Your task to perform on an android device: open sync settings in chrome Image 0: 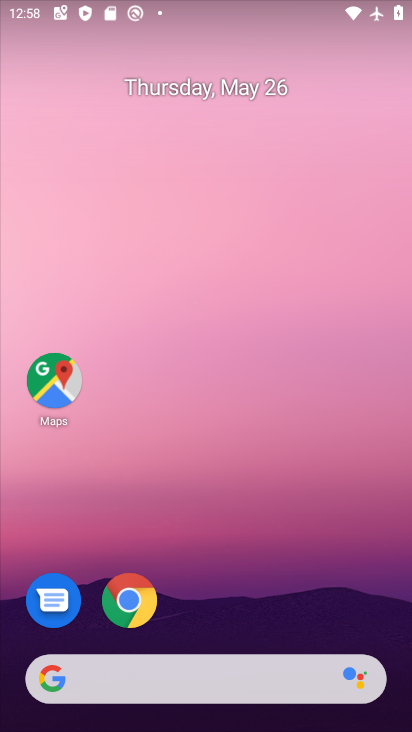
Step 0: drag from (270, 588) to (260, 124)
Your task to perform on an android device: open sync settings in chrome Image 1: 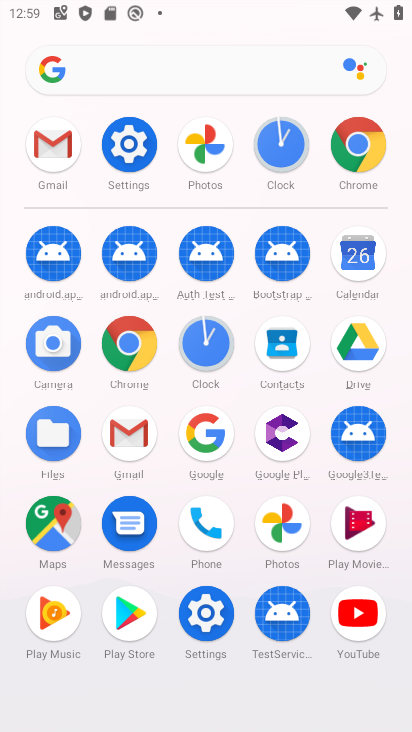
Step 1: click (357, 142)
Your task to perform on an android device: open sync settings in chrome Image 2: 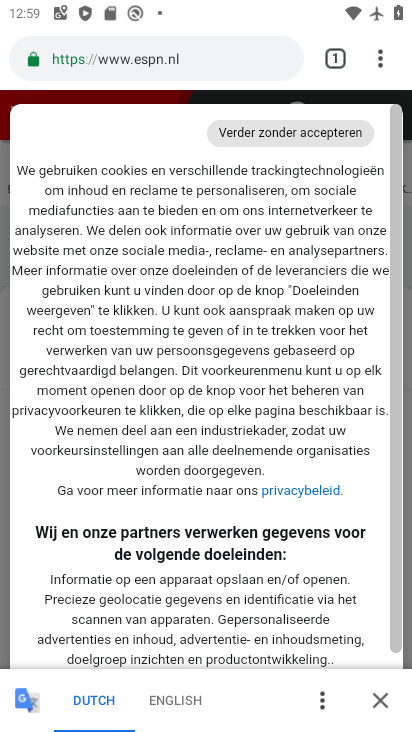
Step 2: click (380, 55)
Your task to perform on an android device: open sync settings in chrome Image 3: 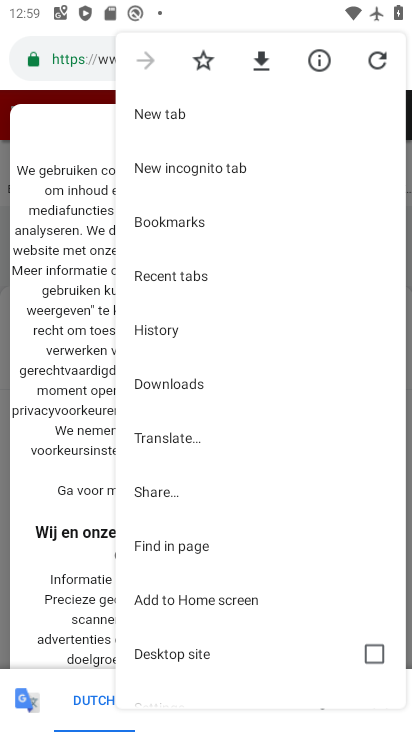
Step 3: drag from (227, 575) to (268, 236)
Your task to perform on an android device: open sync settings in chrome Image 4: 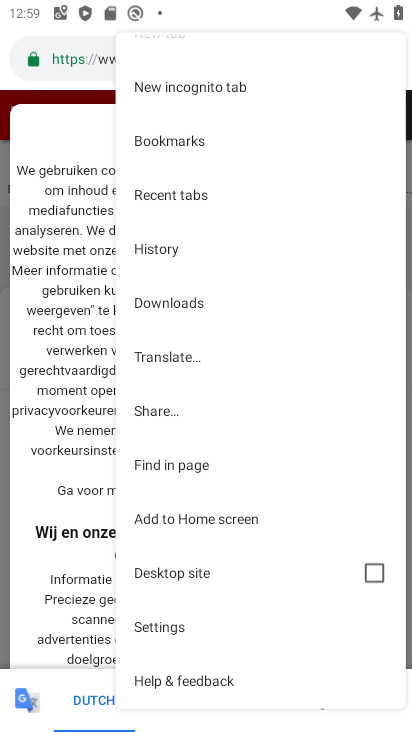
Step 4: click (154, 635)
Your task to perform on an android device: open sync settings in chrome Image 5: 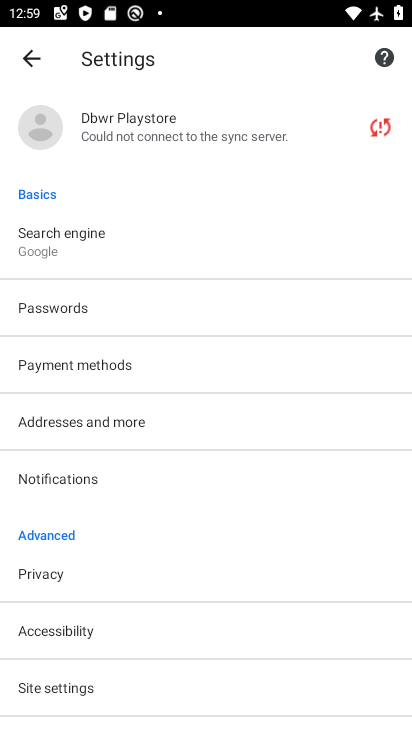
Step 5: click (172, 134)
Your task to perform on an android device: open sync settings in chrome Image 6: 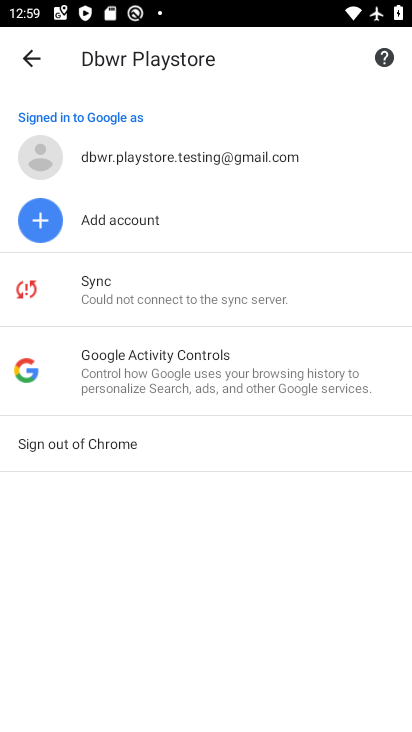
Step 6: click (132, 280)
Your task to perform on an android device: open sync settings in chrome Image 7: 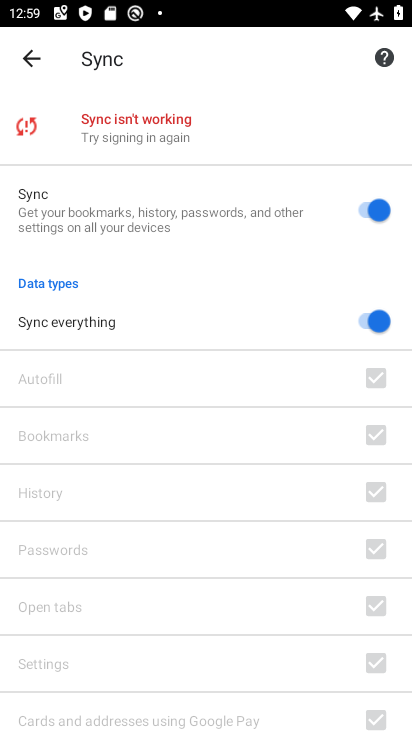
Step 7: task complete